Your task to perform on an android device: check data usage Image 0: 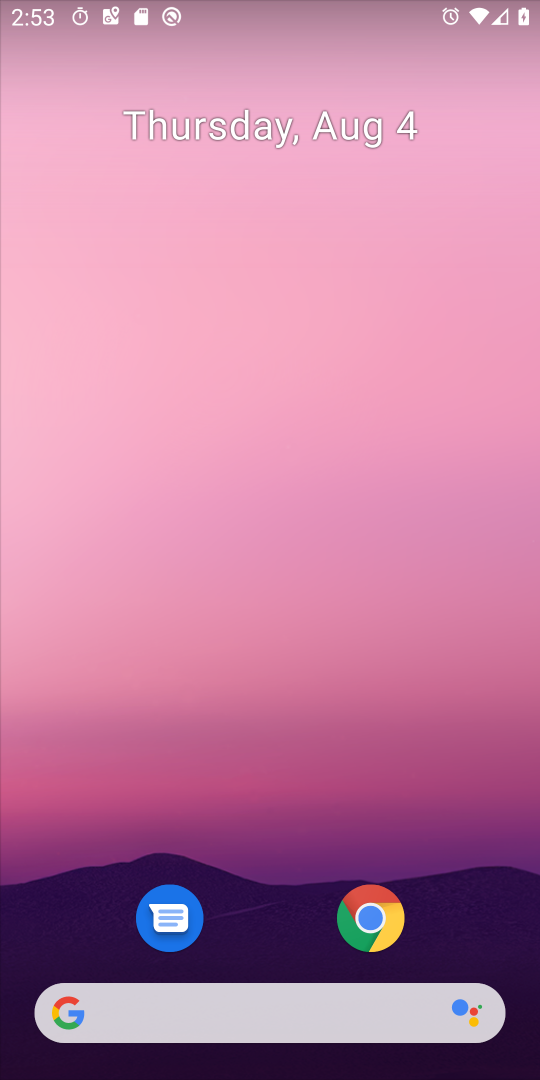
Step 0: drag from (255, 862) to (282, 159)
Your task to perform on an android device: check data usage Image 1: 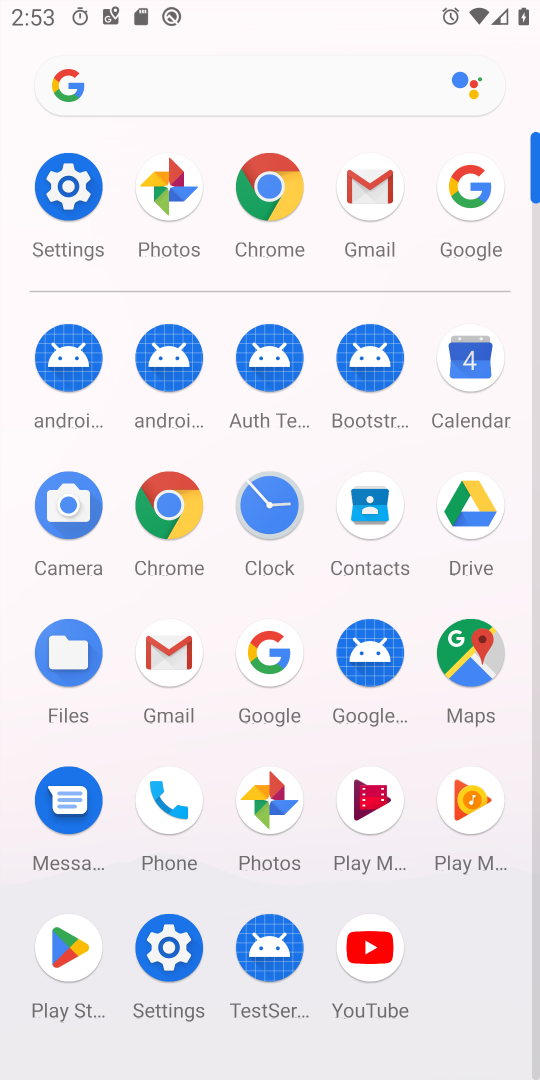
Step 1: click (65, 199)
Your task to perform on an android device: check data usage Image 2: 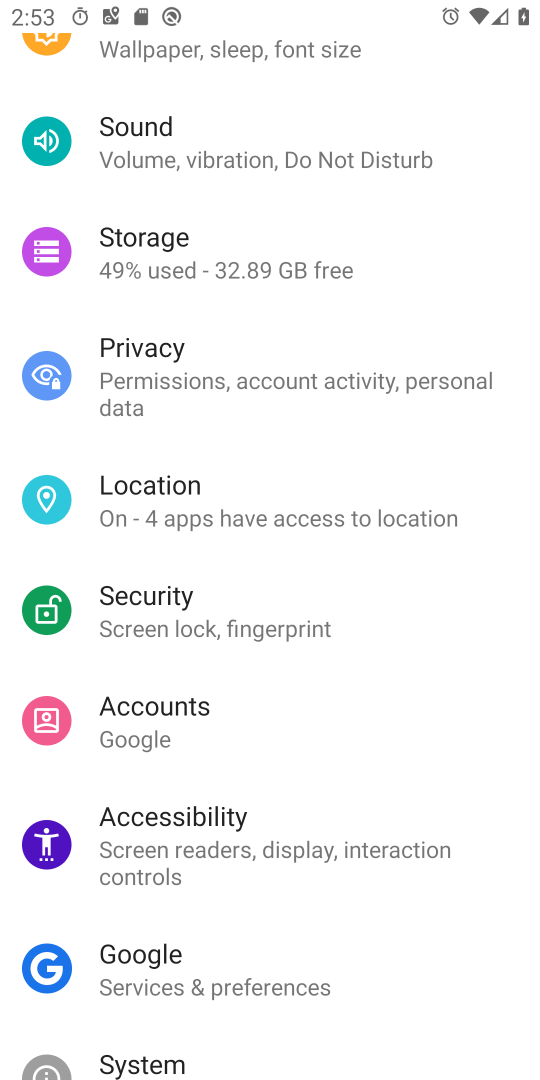
Step 2: drag from (216, 132) to (213, 700)
Your task to perform on an android device: check data usage Image 3: 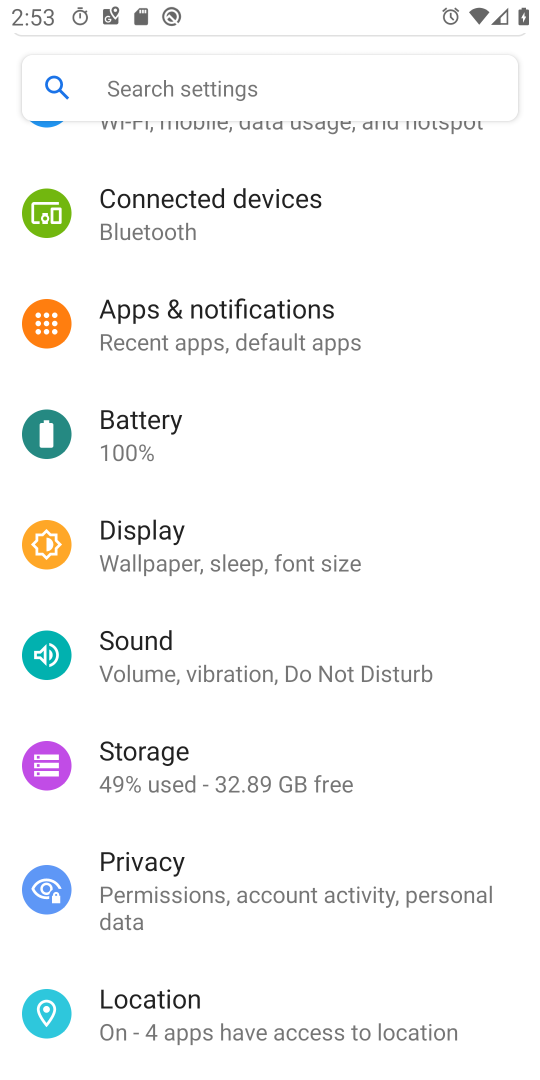
Step 3: drag from (231, 297) to (249, 761)
Your task to perform on an android device: check data usage Image 4: 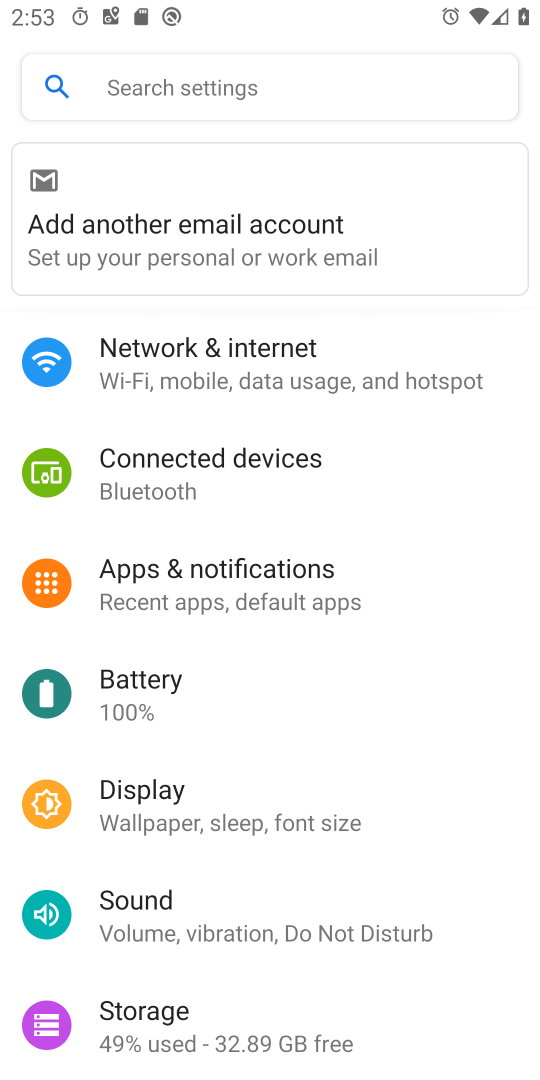
Step 4: click (230, 371)
Your task to perform on an android device: check data usage Image 5: 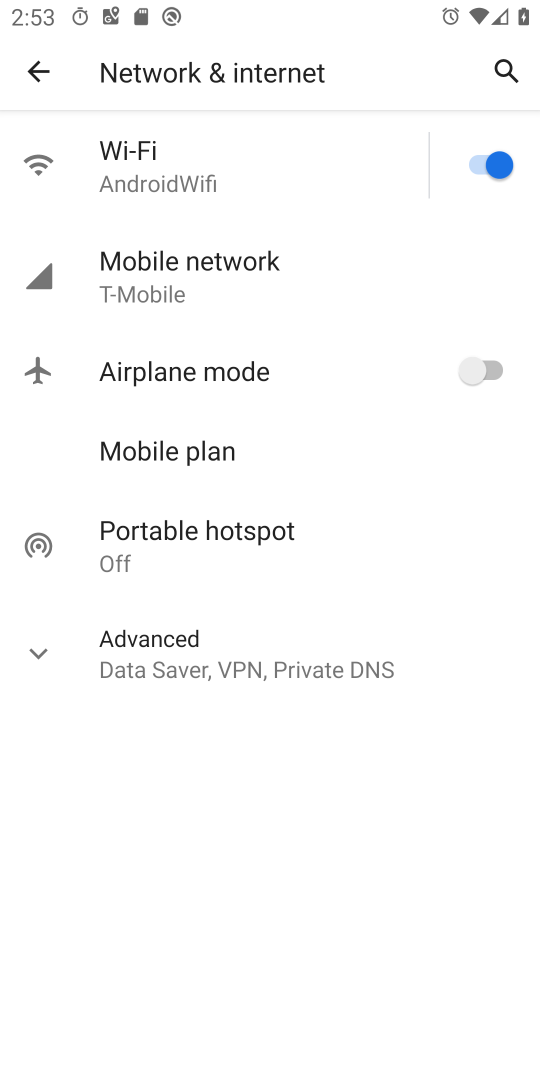
Step 5: click (213, 287)
Your task to perform on an android device: check data usage Image 6: 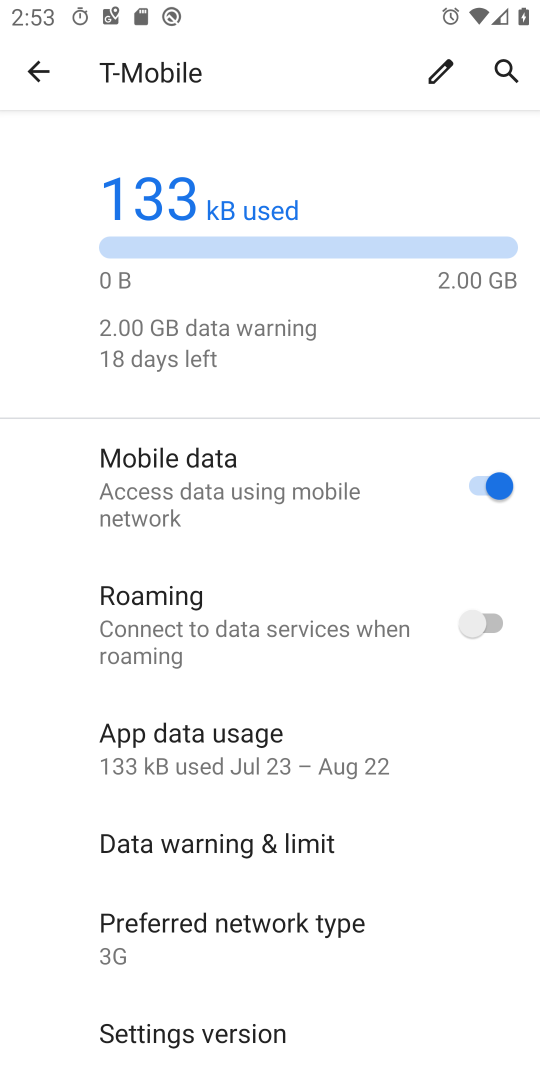
Step 6: click (272, 751)
Your task to perform on an android device: check data usage Image 7: 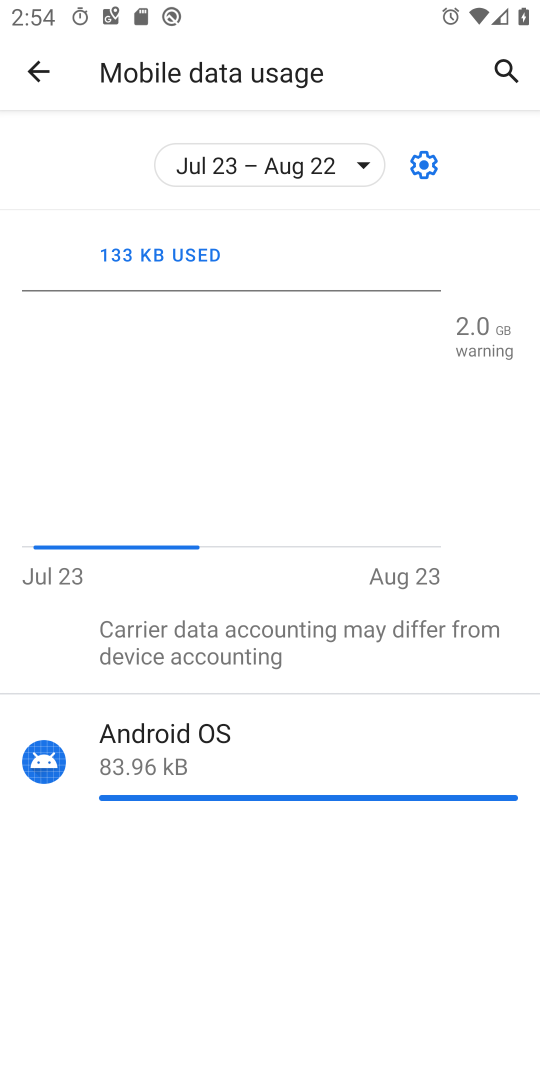
Step 7: task complete